Your task to perform on an android device: open a bookmark in the chrome app Image 0: 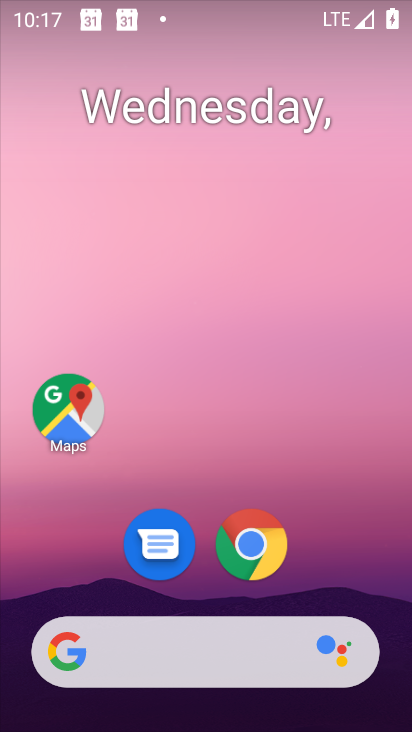
Step 0: click (254, 545)
Your task to perform on an android device: open a bookmark in the chrome app Image 1: 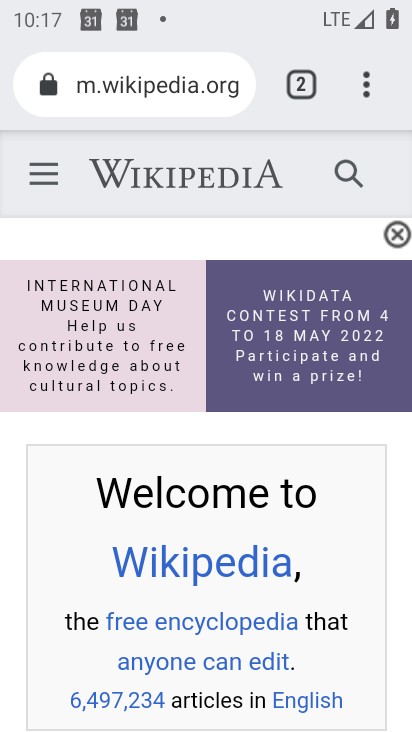
Step 1: click (359, 86)
Your task to perform on an android device: open a bookmark in the chrome app Image 2: 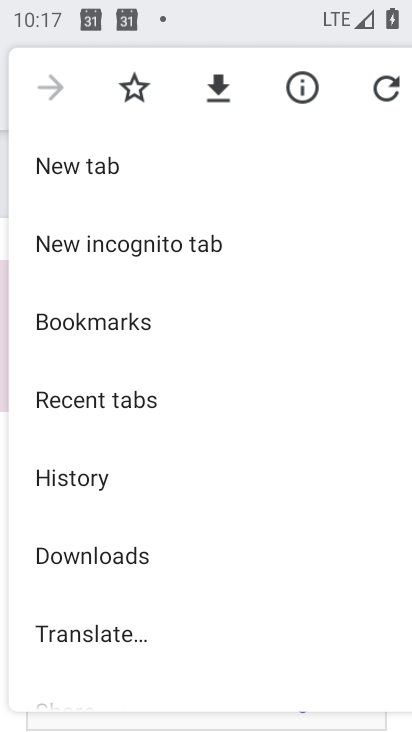
Step 2: click (145, 320)
Your task to perform on an android device: open a bookmark in the chrome app Image 3: 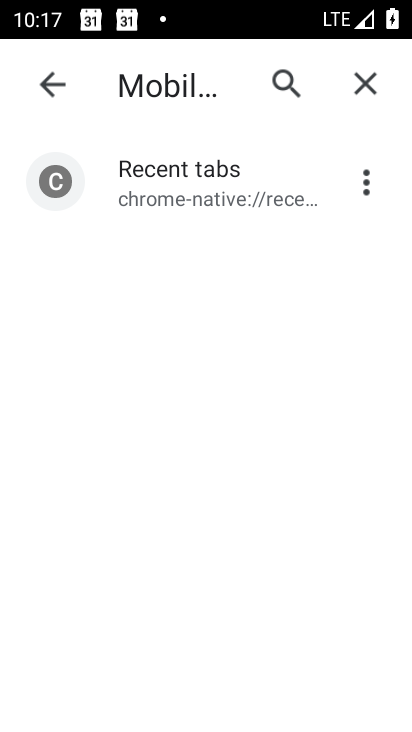
Step 3: click (189, 203)
Your task to perform on an android device: open a bookmark in the chrome app Image 4: 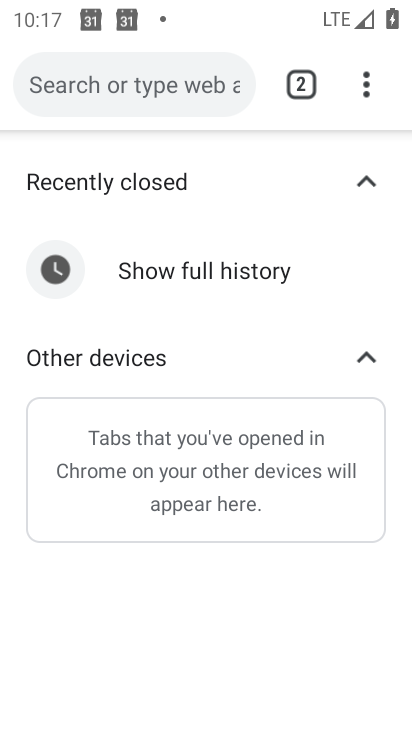
Step 4: task complete